Your task to perform on an android device: Open ESPN.com Image 0: 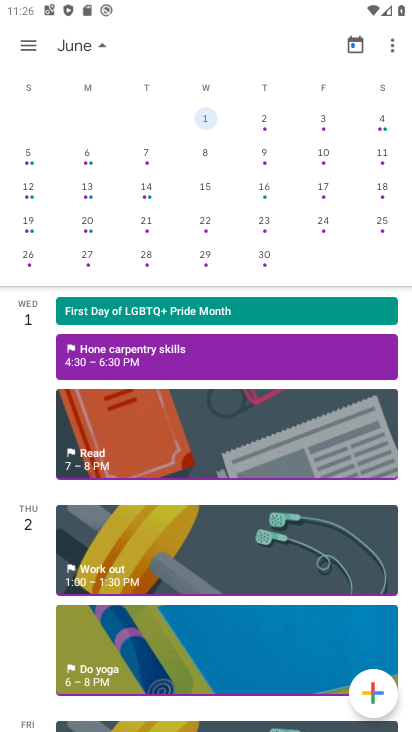
Step 0: press home button
Your task to perform on an android device: Open ESPN.com Image 1: 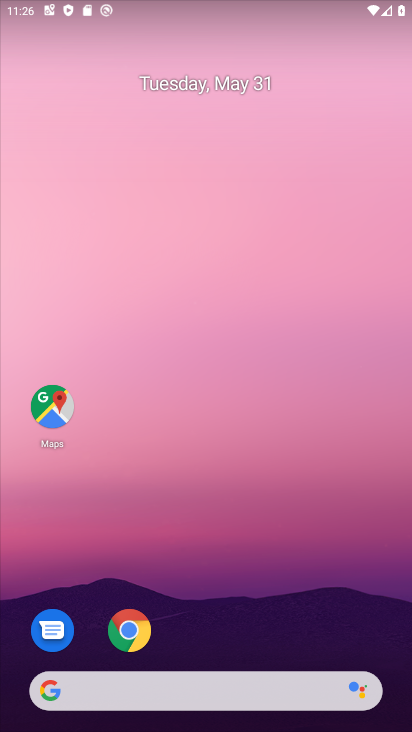
Step 1: click (125, 633)
Your task to perform on an android device: Open ESPN.com Image 2: 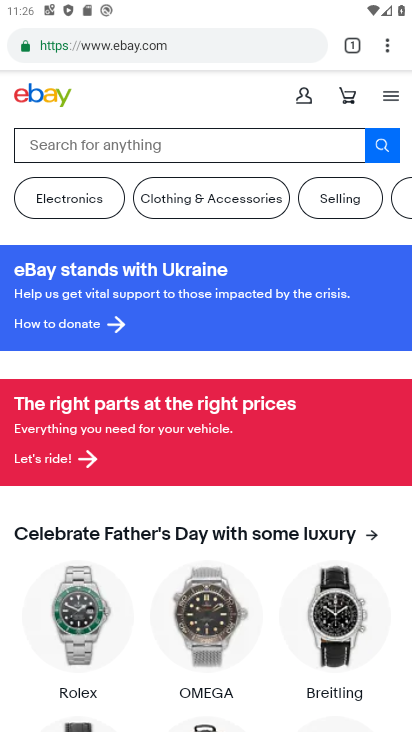
Step 2: click (354, 42)
Your task to perform on an android device: Open ESPN.com Image 3: 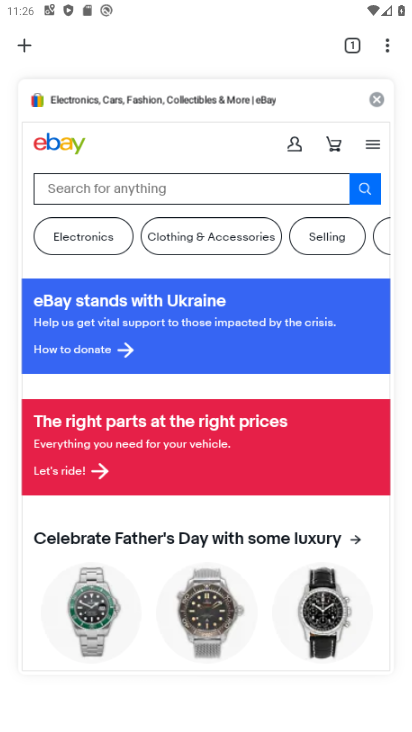
Step 3: click (376, 97)
Your task to perform on an android device: Open ESPN.com Image 4: 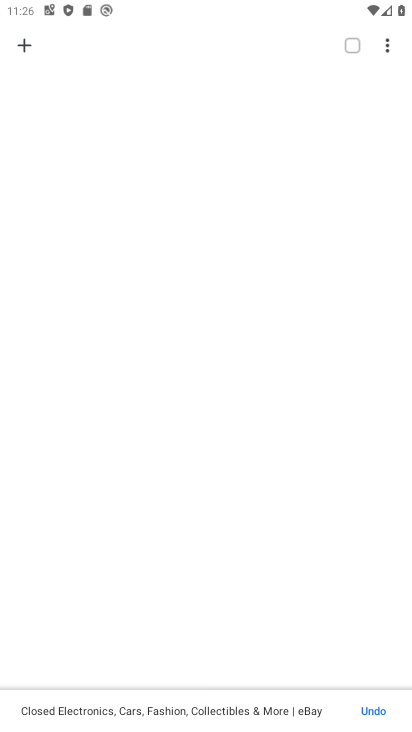
Step 4: click (23, 53)
Your task to perform on an android device: Open ESPN.com Image 5: 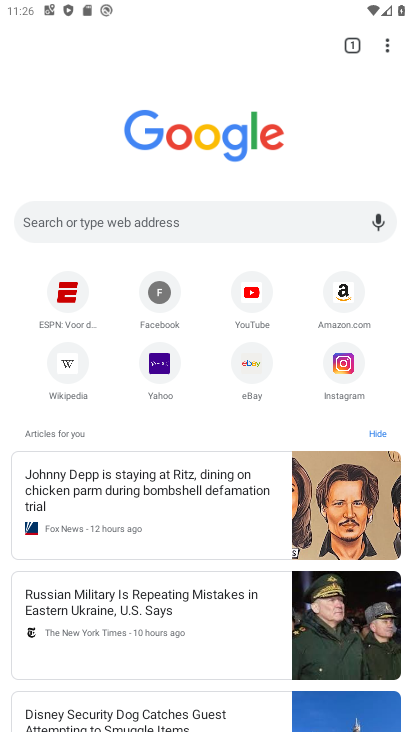
Step 5: click (65, 301)
Your task to perform on an android device: Open ESPN.com Image 6: 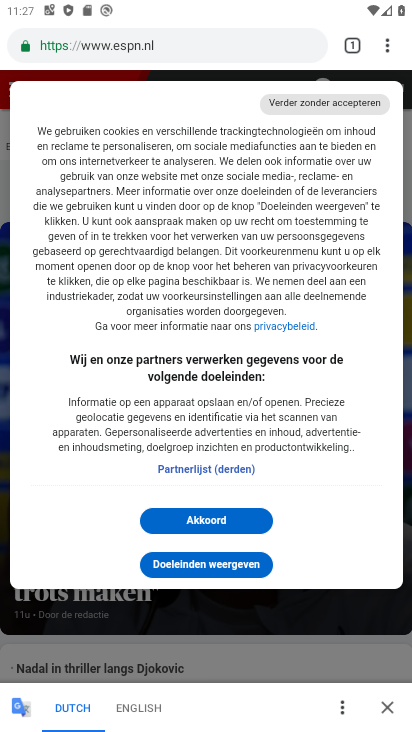
Step 6: click (165, 709)
Your task to perform on an android device: Open ESPN.com Image 7: 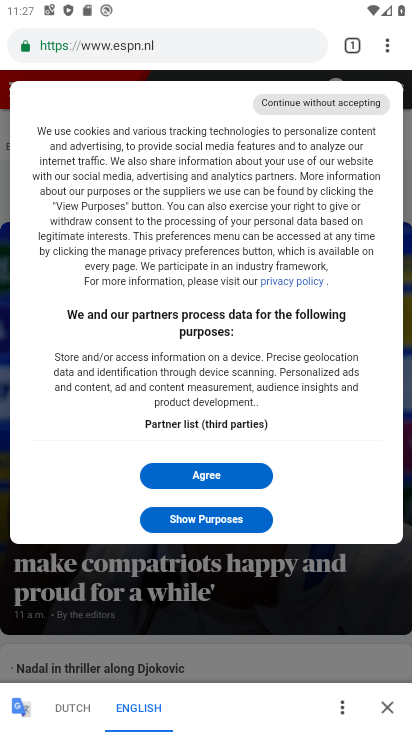
Step 7: click (226, 482)
Your task to perform on an android device: Open ESPN.com Image 8: 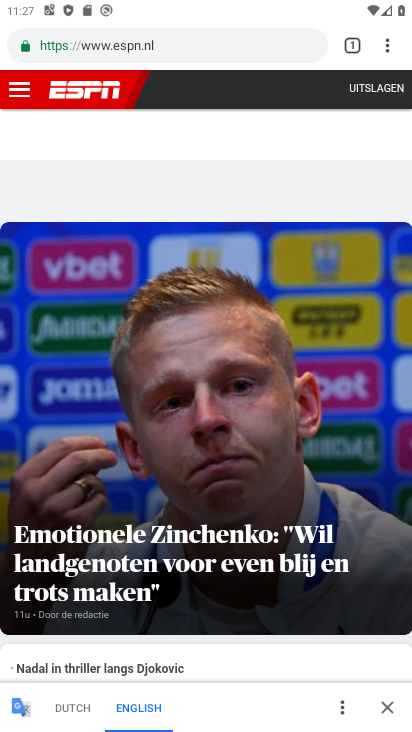
Step 8: task complete